Your task to perform on an android device: read, delete, or share a saved page in the chrome app Image 0: 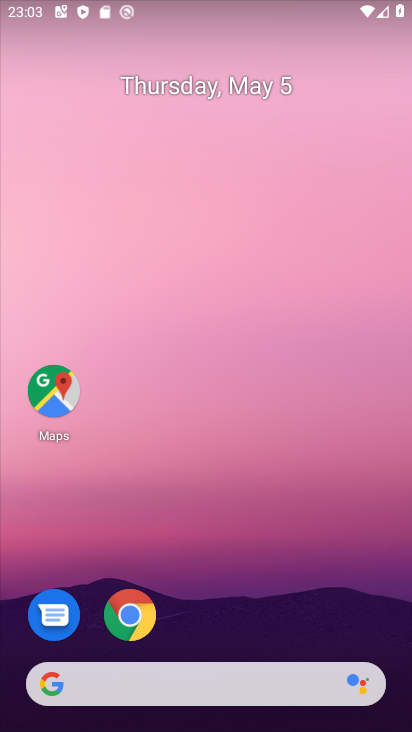
Step 0: click (134, 612)
Your task to perform on an android device: read, delete, or share a saved page in the chrome app Image 1: 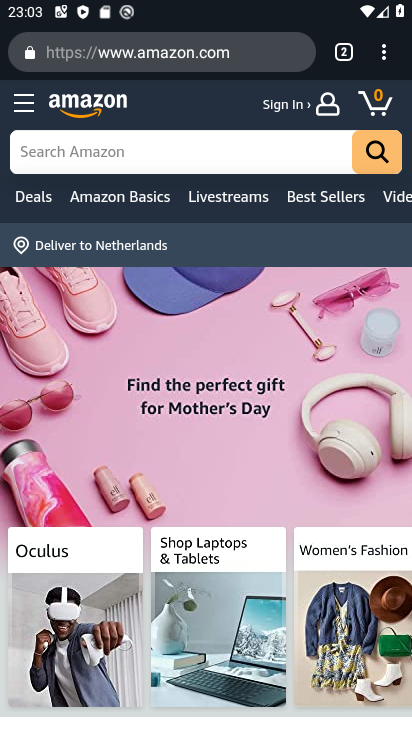
Step 1: click (379, 55)
Your task to perform on an android device: read, delete, or share a saved page in the chrome app Image 2: 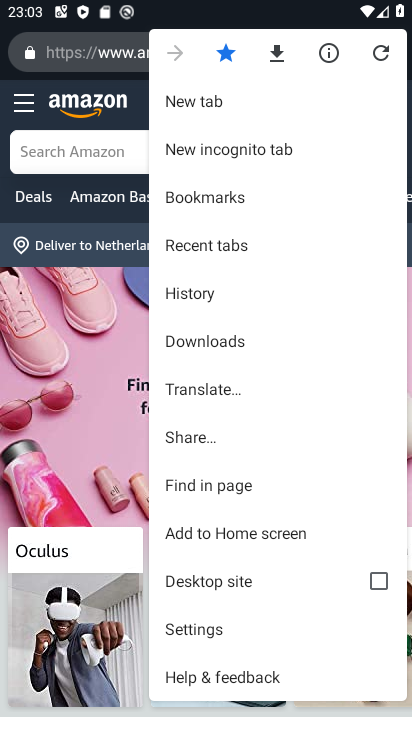
Step 2: click (203, 346)
Your task to perform on an android device: read, delete, or share a saved page in the chrome app Image 3: 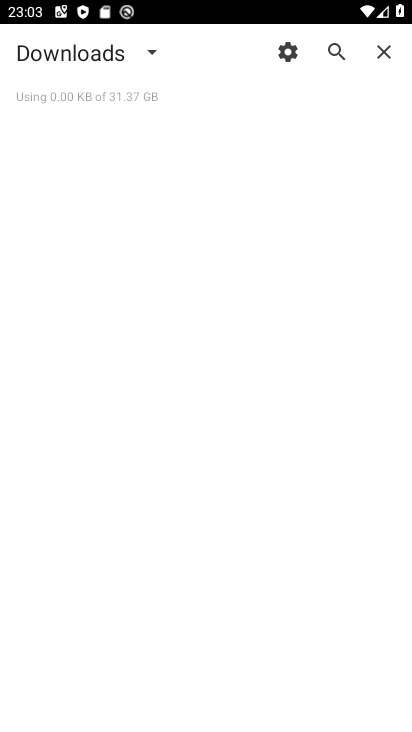
Step 3: task complete